Your task to perform on an android device: turn on the 12-hour format for clock Image 0: 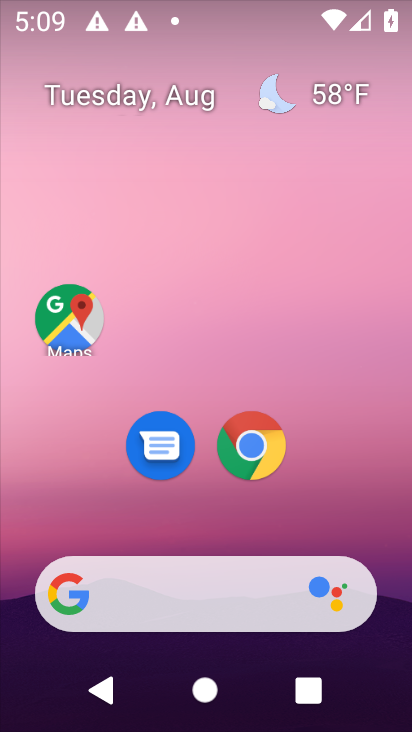
Step 0: drag from (211, 510) to (127, 48)
Your task to perform on an android device: turn on the 12-hour format for clock Image 1: 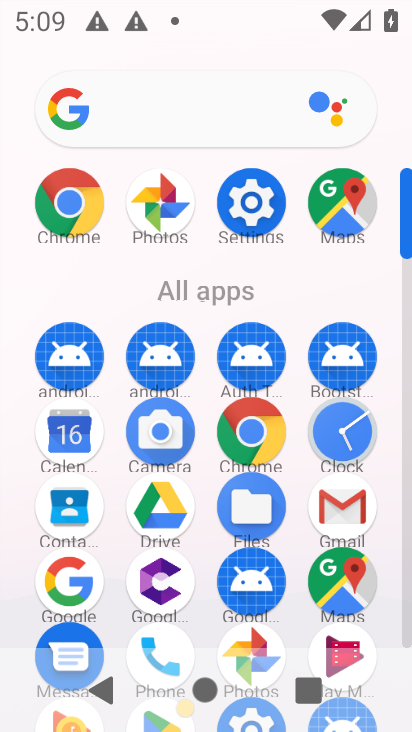
Step 1: click (253, 206)
Your task to perform on an android device: turn on the 12-hour format for clock Image 2: 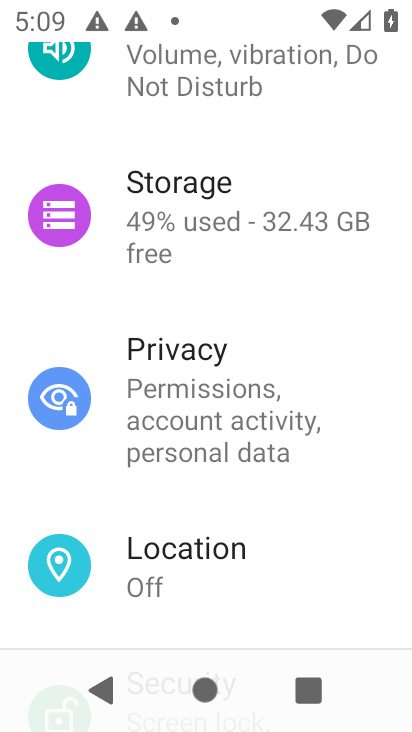
Step 2: drag from (289, 246) to (194, 626)
Your task to perform on an android device: turn on the 12-hour format for clock Image 3: 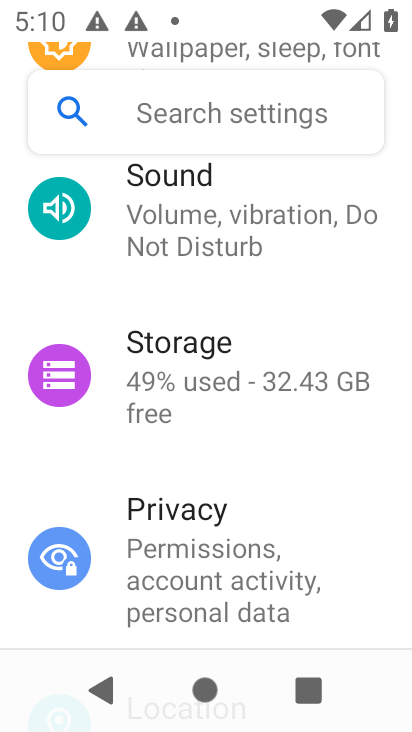
Step 3: drag from (244, 327) to (250, 580)
Your task to perform on an android device: turn on the 12-hour format for clock Image 4: 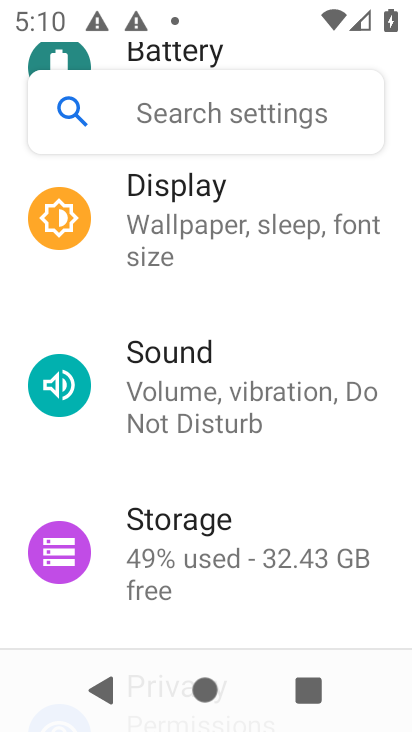
Step 4: drag from (265, 368) to (270, 588)
Your task to perform on an android device: turn on the 12-hour format for clock Image 5: 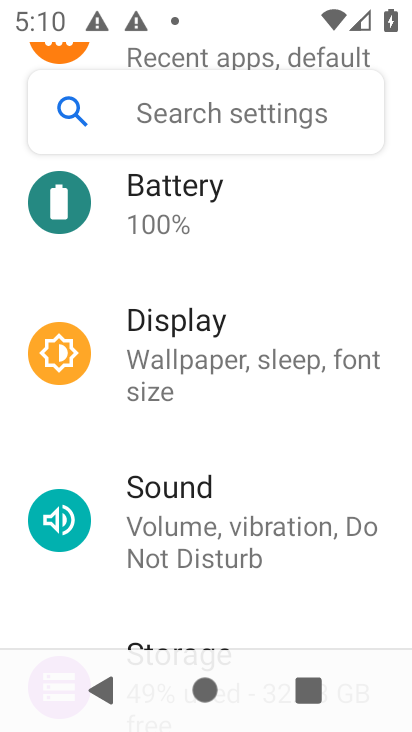
Step 5: drag from (269, 201) to (300, 678)
Your task to perform on an android device: turn on the 12-hour format for clock Image 6: 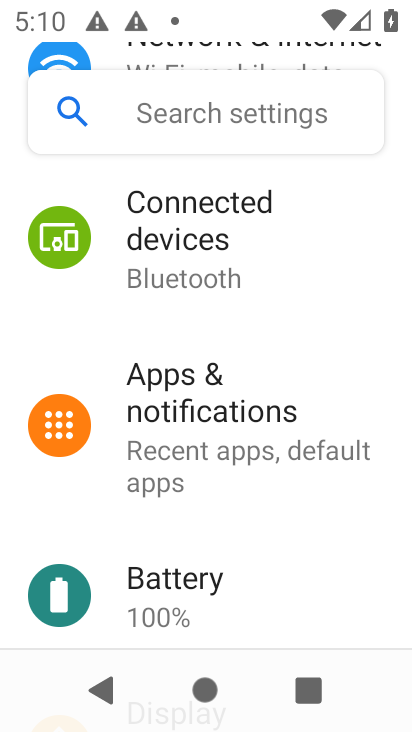
Step 6: drag from (275, 440) to (267, 234)
Your task to perform on an android device: turn on the 12-hour format for clock Image 7: 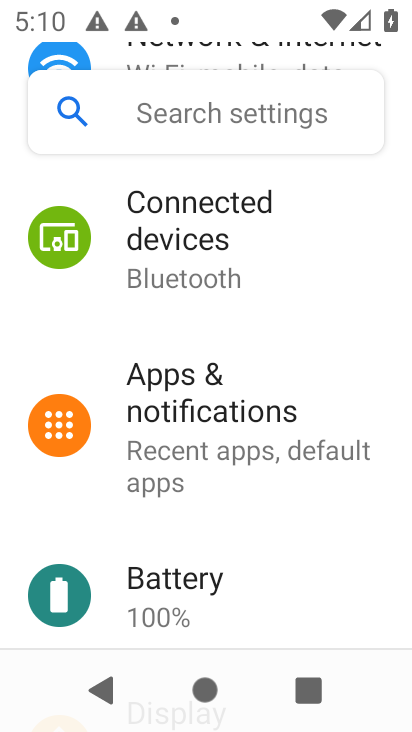
Step 7: drag from (255, 340) to (259, 272)
Your task to perform on an android device: turn on the 12-hour format for clock Image 8: 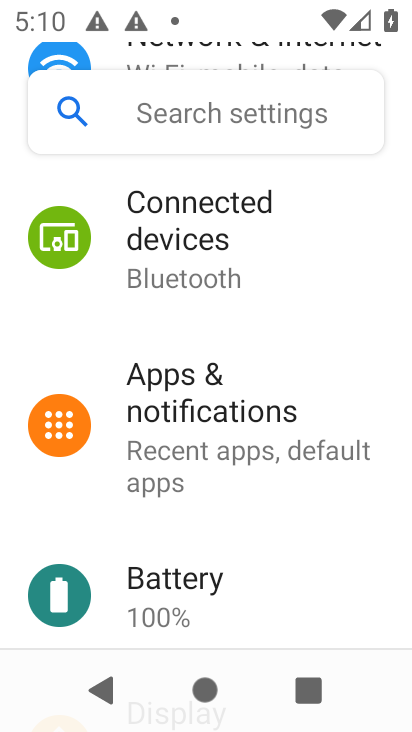
Step 8: drag from (259, 587) to (259, 284)
Your task to perform on an android device: turn on the 12-hour format for clock Image 9: 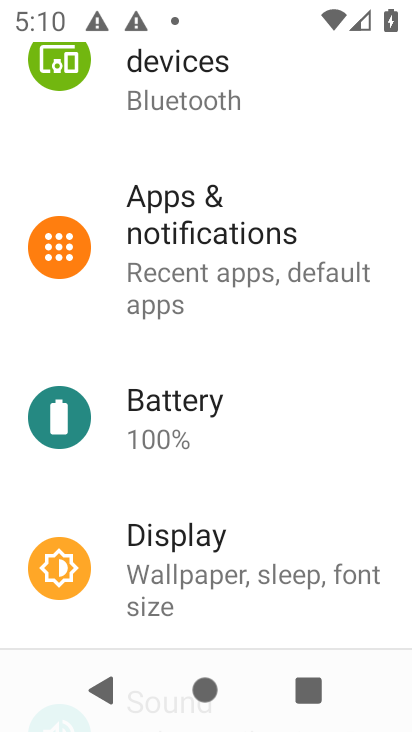
Step 9: click (256, 338)
Your task to perform on an android device: turn on the 12-hour format for clock Image 10: 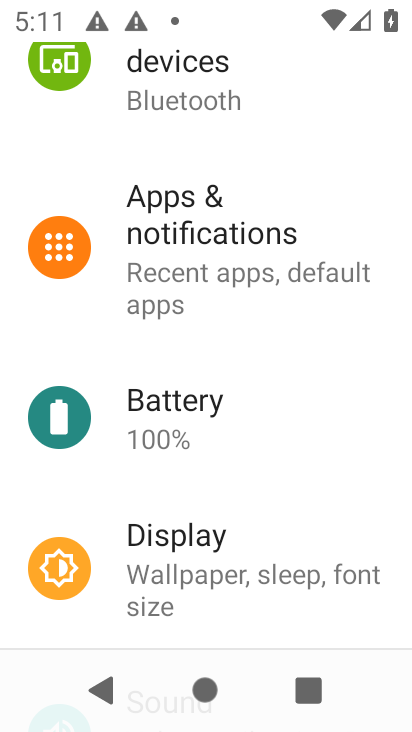
Step 10: press home button
Your task to perform on an android device: turn on the 12-hour format for clock Image 11: 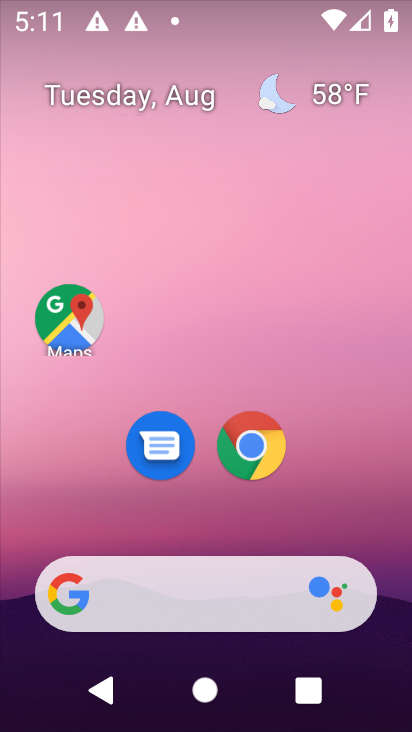
Step 11: drag from (188, 493) to (229, 4)
Your task to perform on an android device: turn on the 12-hour format for clock Image 12: 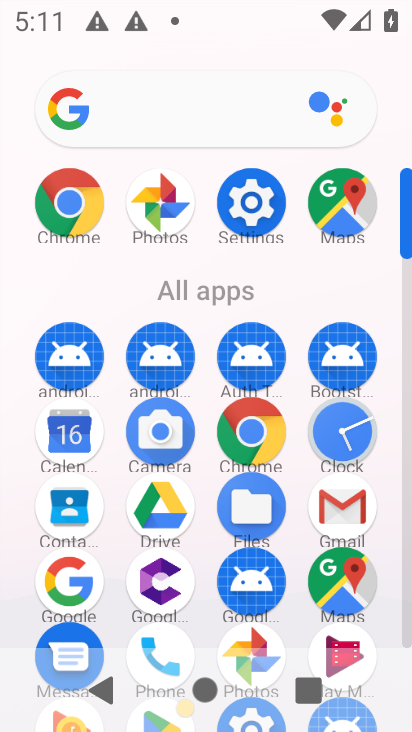
Step 12: click (337, 428)
Your task to perform on an android device: turn on the 12-hour format for clock Image 13: 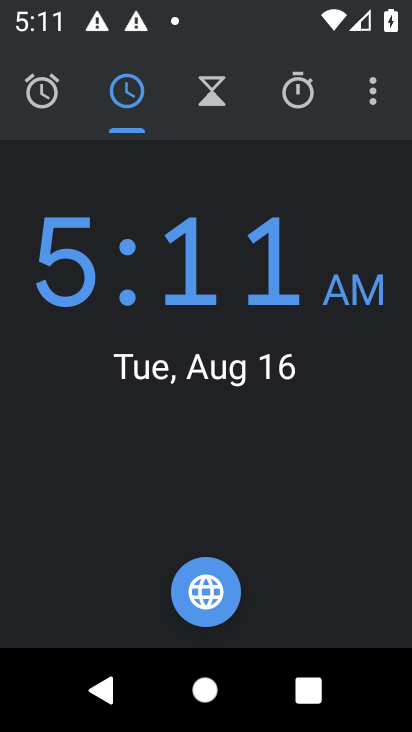
Step 13: click (373, 95)
Your task to perform on an android device: turn on the 12-hour format for clock Image 14: 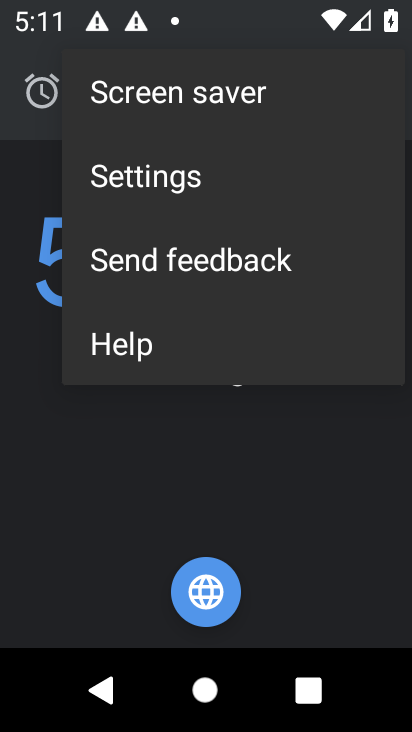
Step 14: click (196, 182)
Your task to perform on an android device: turn on the 12-hour format for clock Image 15: 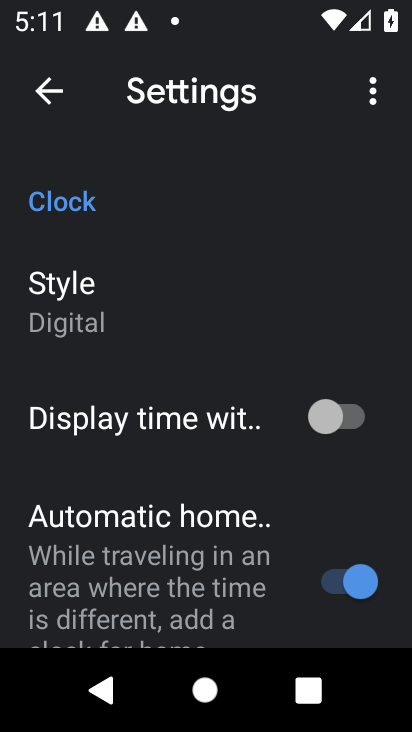
Step 15: drag from (254, 585) to (310, 166)
Your task to perform on an android device: turn on the 12-hour format for clock Image 16: 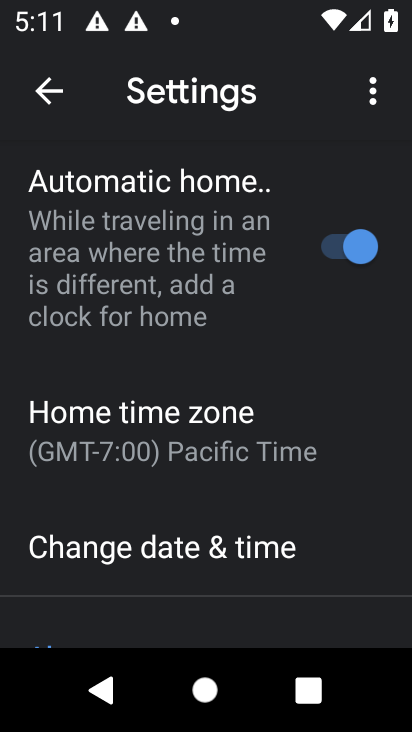
Step 16: click (254, 548)
Your task to perform on an android device: turn on the 12-hour format for clock Image 17: 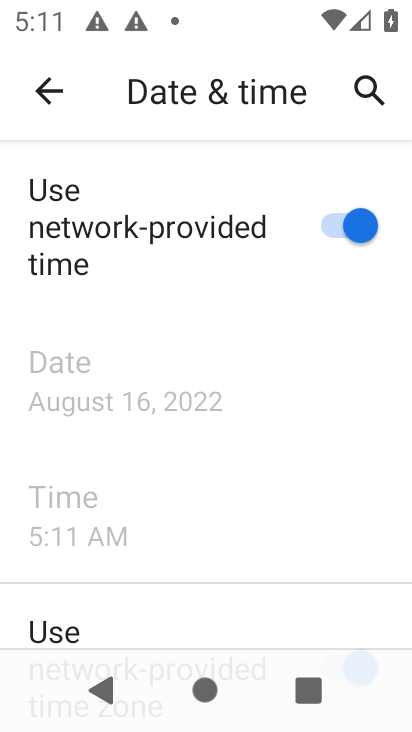
Step 17: drag from (157, 607) to (128, 292)
Your task to perform on an android device: turn on the 12-hour format for clock Image 18: 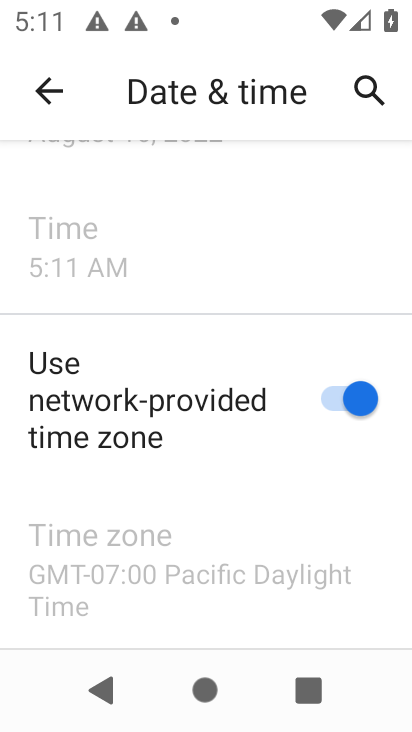
Step 18: drag from (183, 601) to (272, 144)
Your task to perform on an android device: turn on the 12-hour format for clock Image 19: 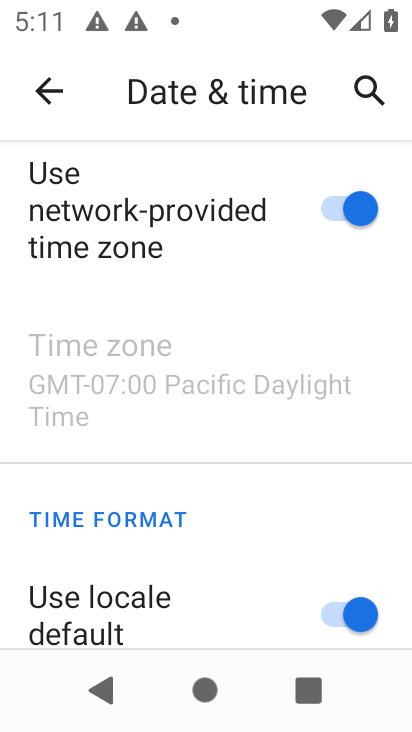
Step 19: drag from (233, 509) to (227, 194)
Your task to perform on an android device: turn on the 12-hour format for clock Image 20: 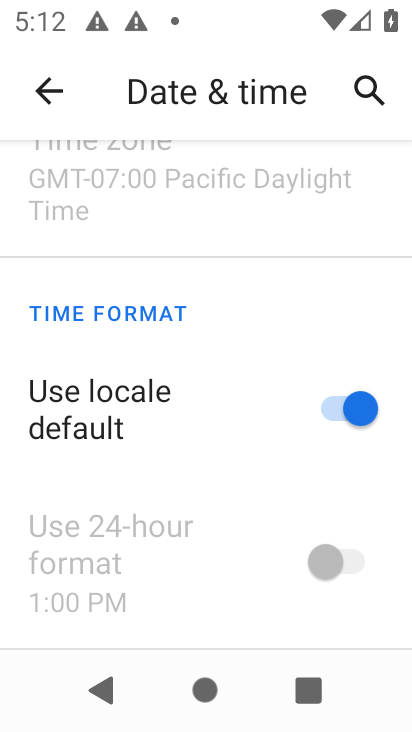
Step 20: click (331, 407)
Your task to perform on an android device: turn on the 12-hour format for clock Image 21: 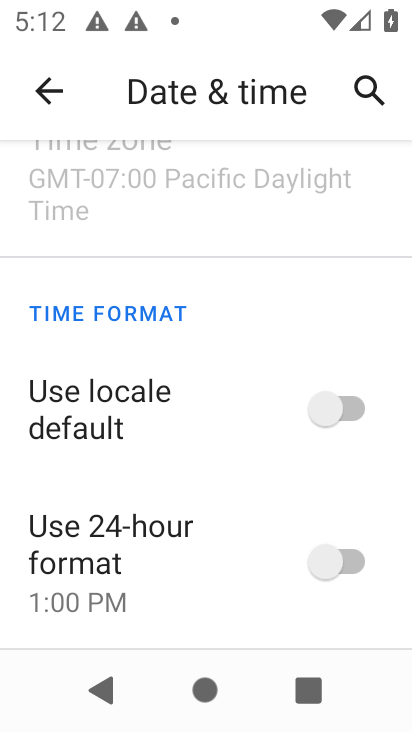
Step 21: drag from (274, 582) to (278, 348)
Your task to perform on an android device: turn on the 12-hour format for clock Image 22: 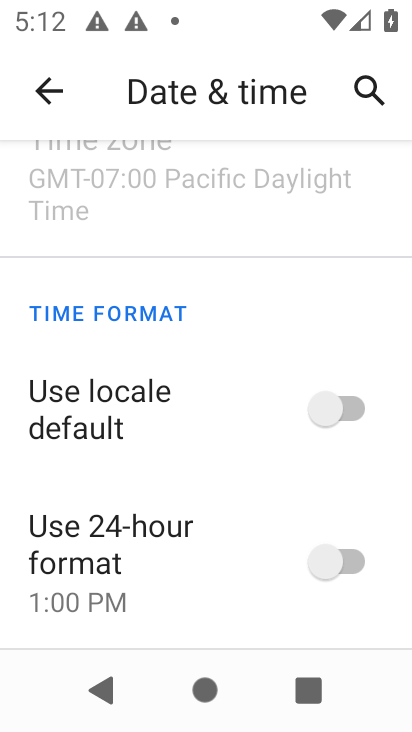
Step 22: drag from (197, 595) to (207, 276)
Your task to perform on an android device: turn on the 12-hour format for clock Image 23: 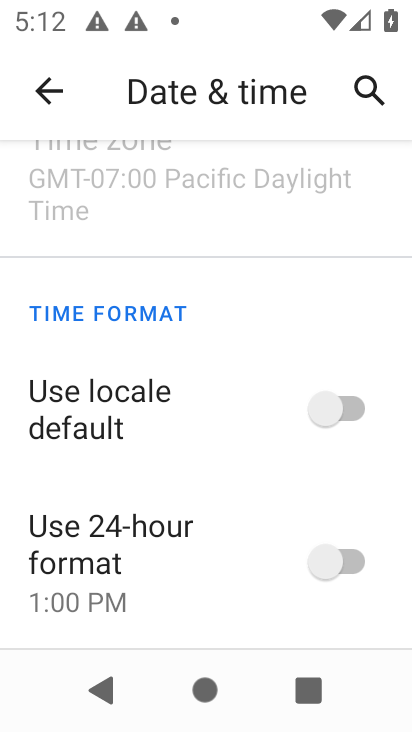
Step 23: click (366, 405)
Your task to perform on an android device: turn on the 12-hour format for clock Image 24: 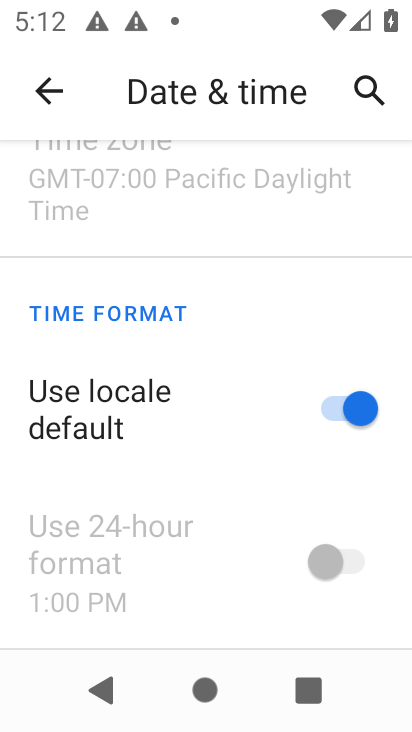
Step 24: task complete